Your task to perform on an android device: open a new tab in the chrome app Image 0: 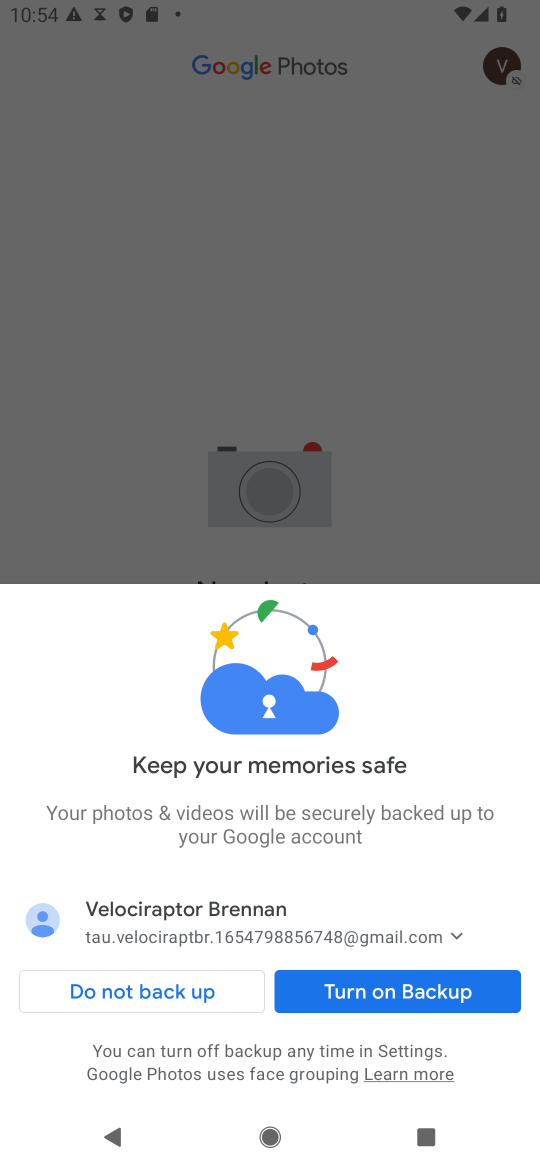
Step 0: click (158, 985)
Your task to perform on an android device: open a new tab in the chrome app Image 1: 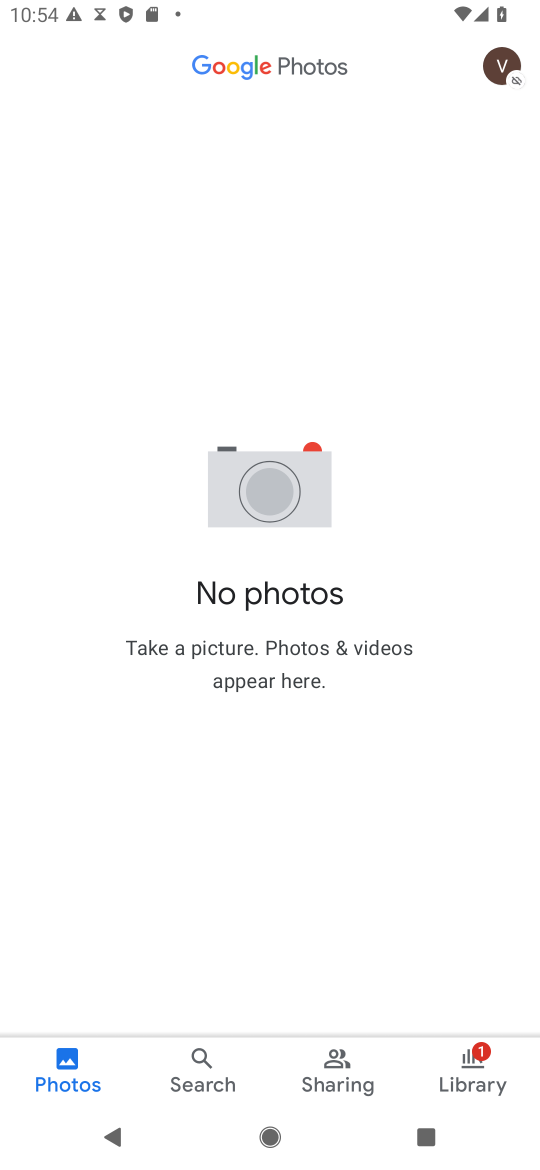
Step 1: press home button
Your task to perform on an android device: open a new tab in the chrome app Image 2: 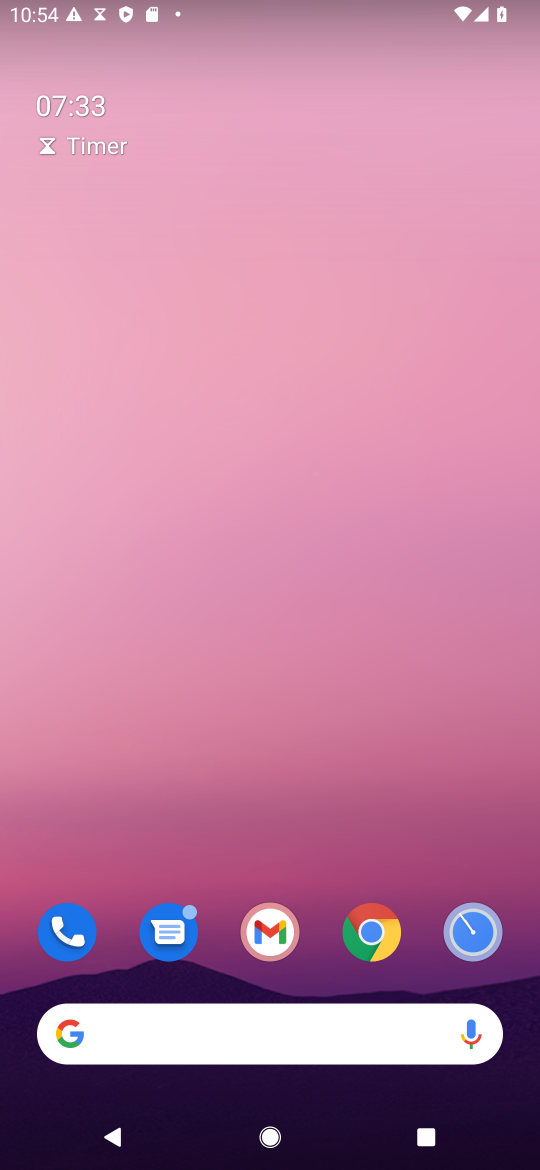
Step 2: click (361, 923)
Your task to perform on an android device: open a new tab in the chrome app Image 3: 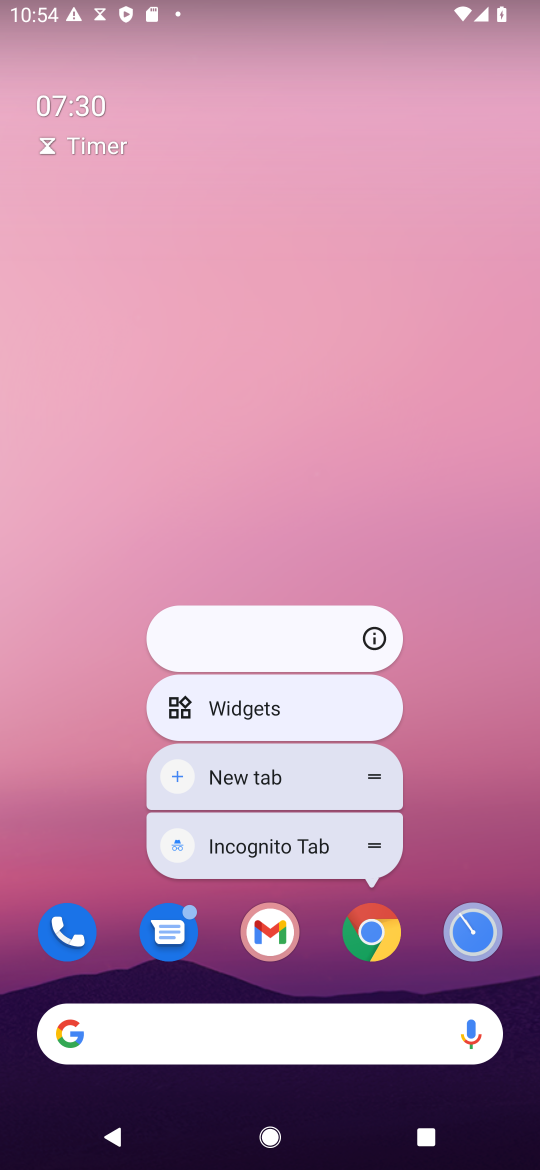
Step 3: click (363, 928)
Your task to perform on an android device: open a new tab in the chrome app Image 4: 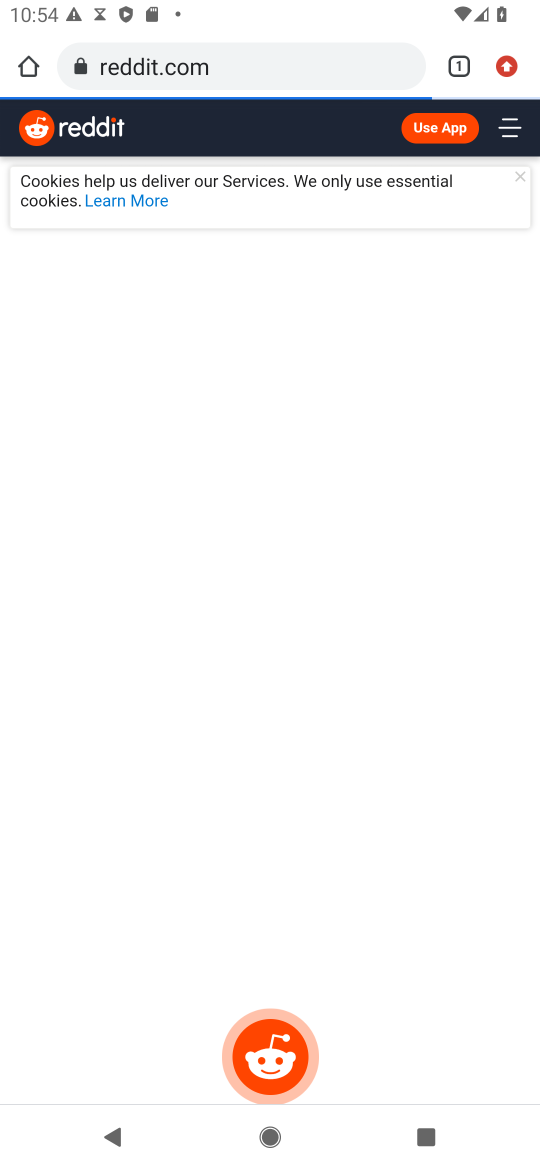
Step 4: click (502, 72)
Your task to perform on an android device: open a new tab in the chrome app Image 5: 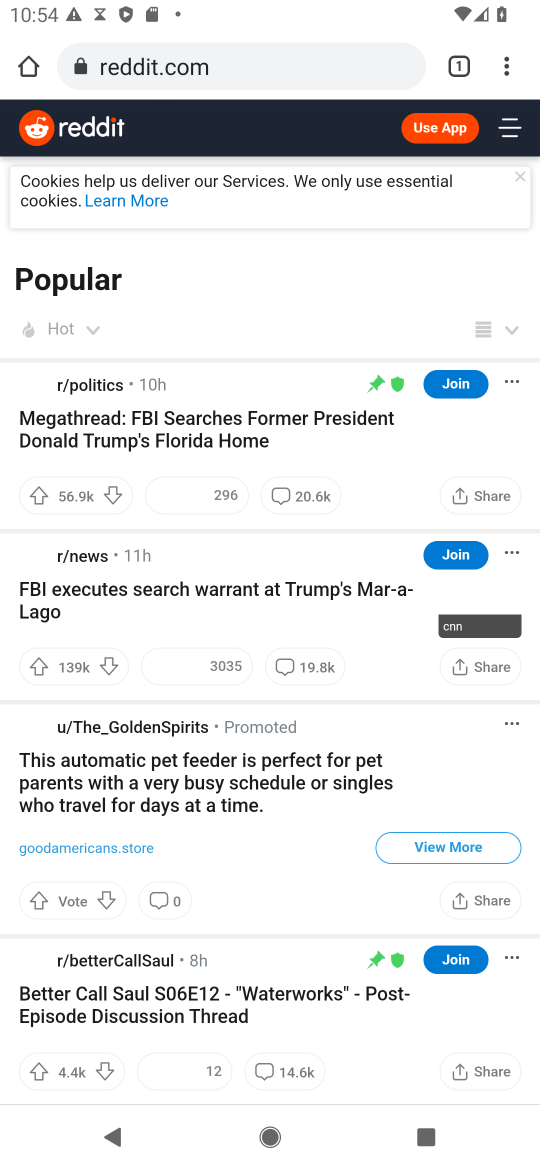
Step 5: click (508, 57)
Your task to perform on an android device: open a new tab in the chrome app Image 6: 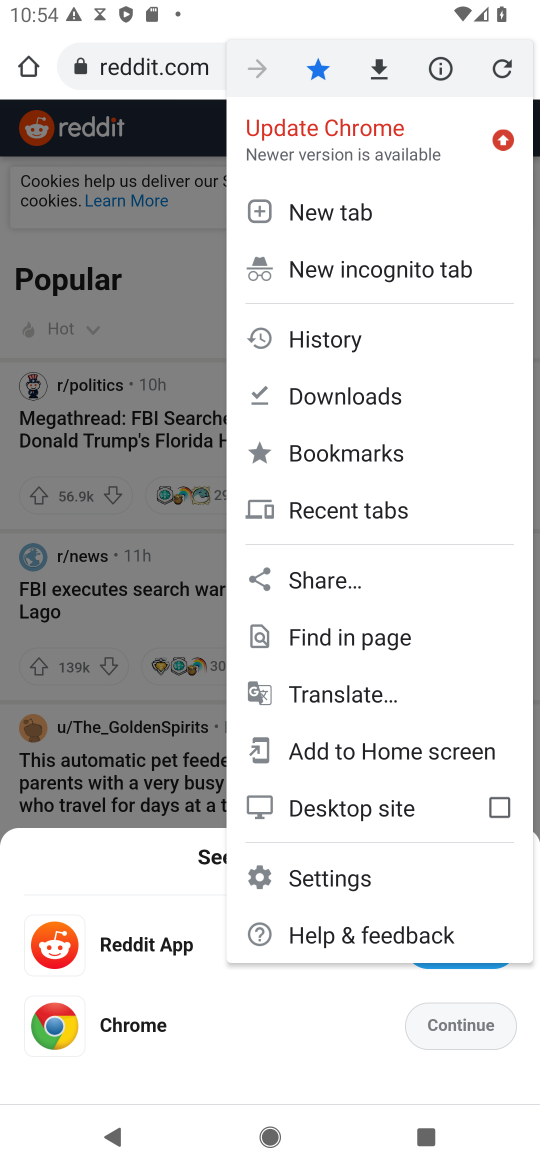
Step 6: click (347, 216)
Your task to perform on an android device: open a new tab in the chrome app Image 7: 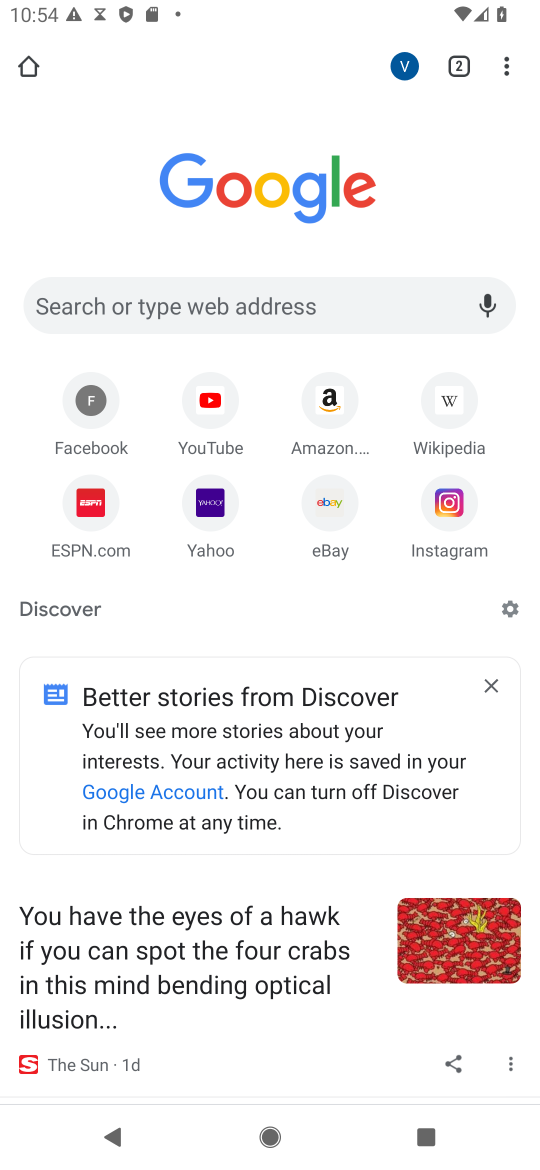
Step 7: task complete